Your task to perform on an android device: toggle airplane mode Image 0: 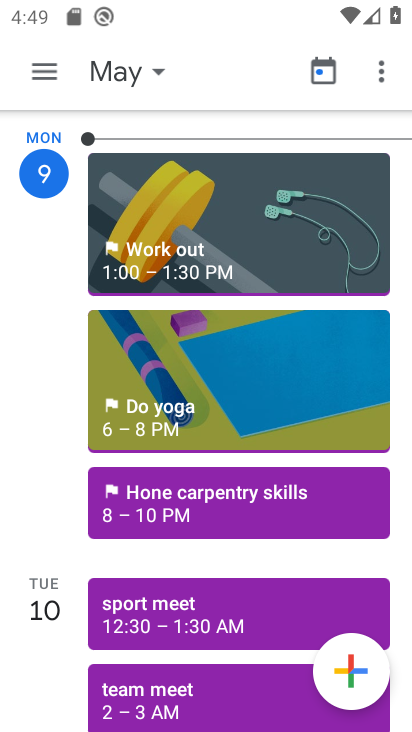
Step 0: press home button
Your task to perform on an android device: toggle airplane mode Image 1: 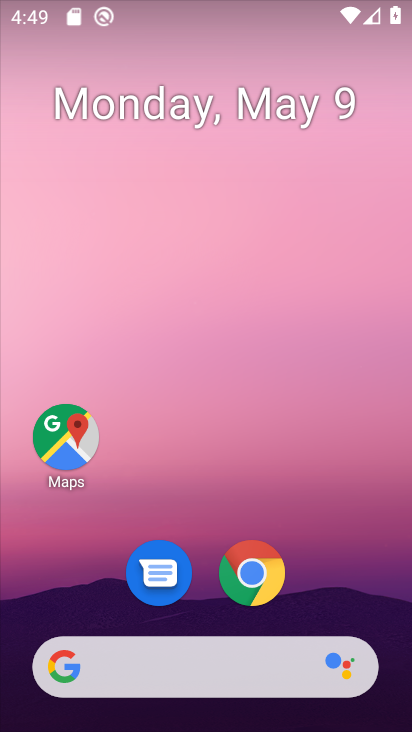
Step 1: drag from (357, 603) to (283, 89)
Your task to perform on an android device: toggle airplane mode Image 2: 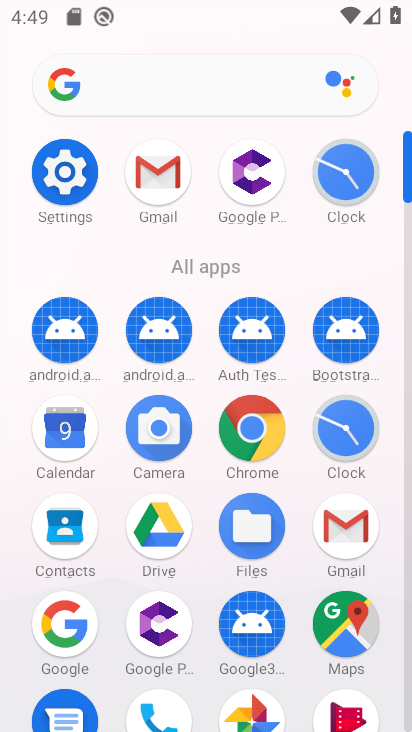
Step 2: click (406, 702)
Your task to perform on an android device: toggle airplane mode Image 3: 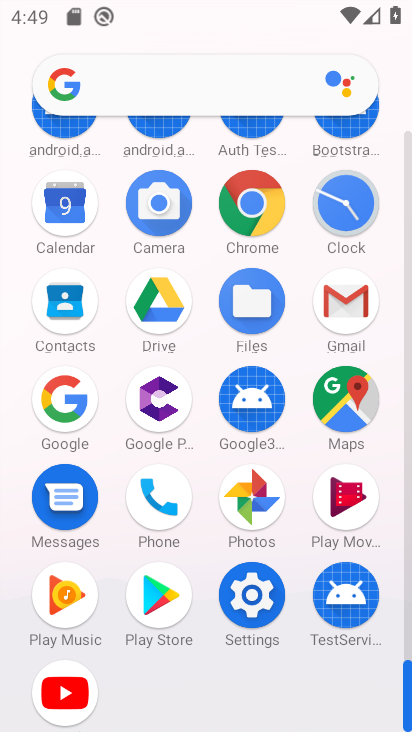
Step 3: click (250, 591)
Your task to perform on an android device: toggle airplane mode Image 4: 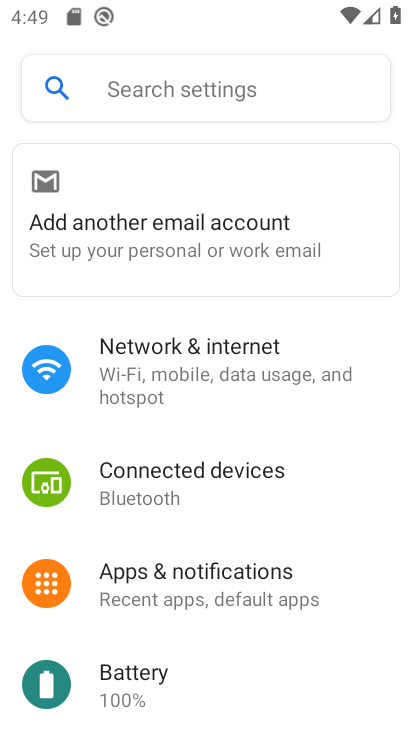
Step 4: click (155, 369)
Your task to perform on an android device: toggle airplane mode Image 5: 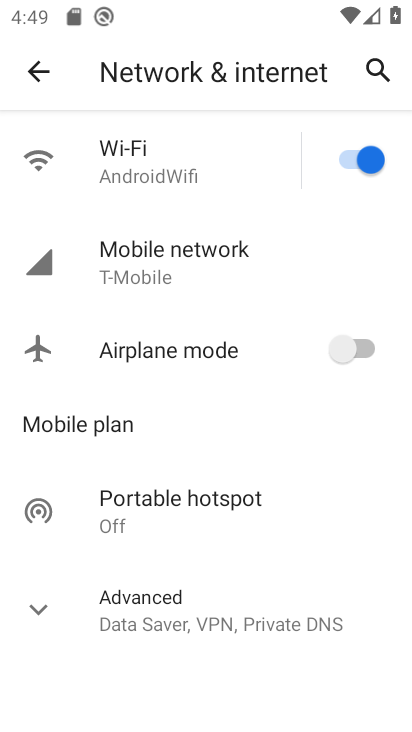
Step 5: click (367, 350)
Your task to perform on an android device: toggle airplane mode Image 6: 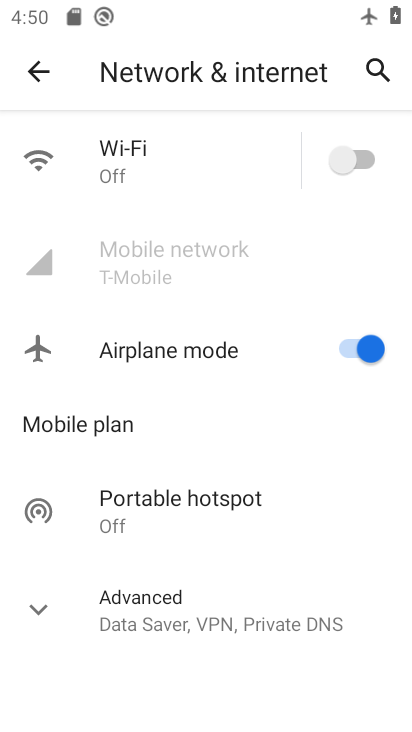
Step 6: task complete